Your task to perform on an android device: change your default location settings in chrome Image 0: 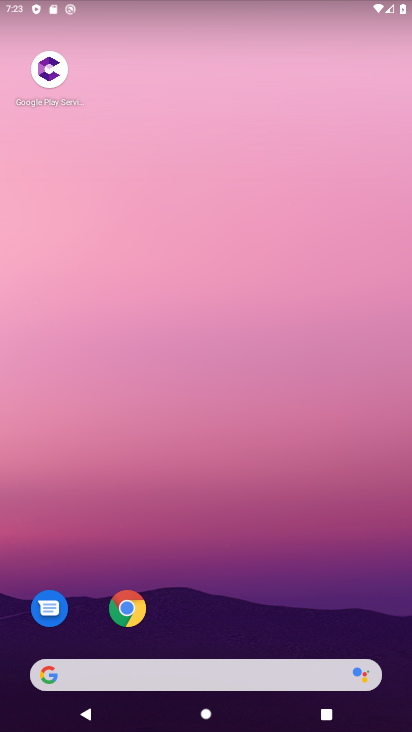
Step 0: drag from (290, 627) to (280, 214)
Your task to perform on an android device: change your default location settings in chrome Image 1: 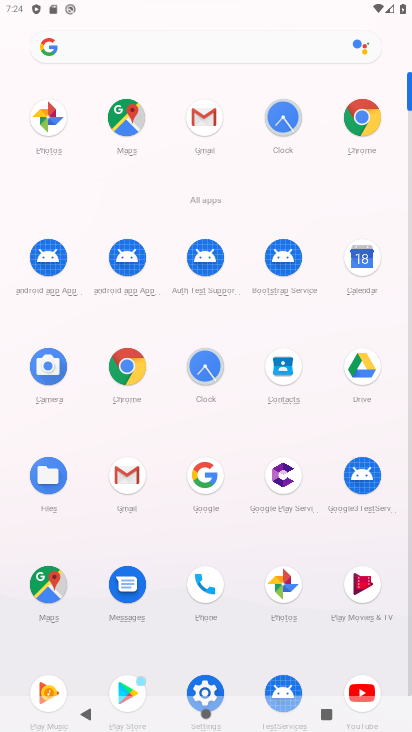
Step 1: drag from (240, 577) to (242, 276)
Your task to perform on an android device: change your default location settings in chrome Image 2: 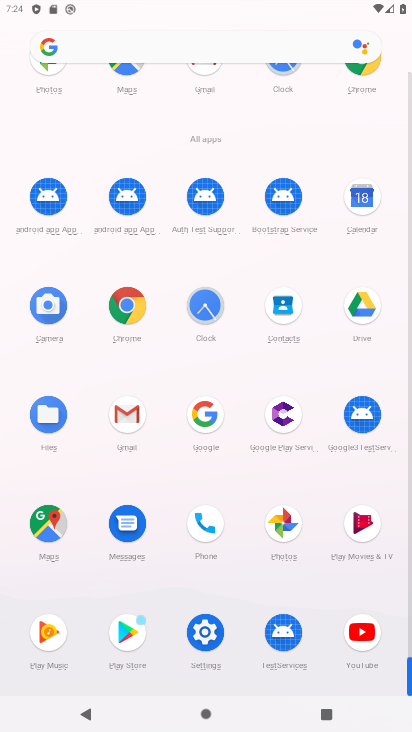
Step 2: drag from (236, 497) to (251, 248)
Your task to perform on an android device: change your default location settings in chrome Image 3: 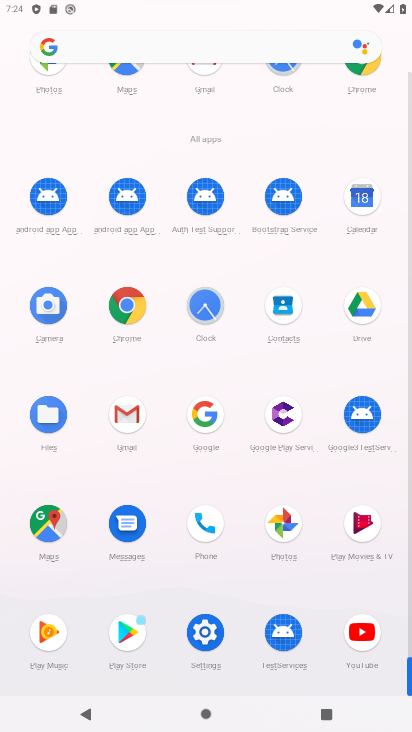
Step 3: drag from (231, 493) to (226, 636)
Your task to perform on an android device: change your default location settings in chrome Image 4: 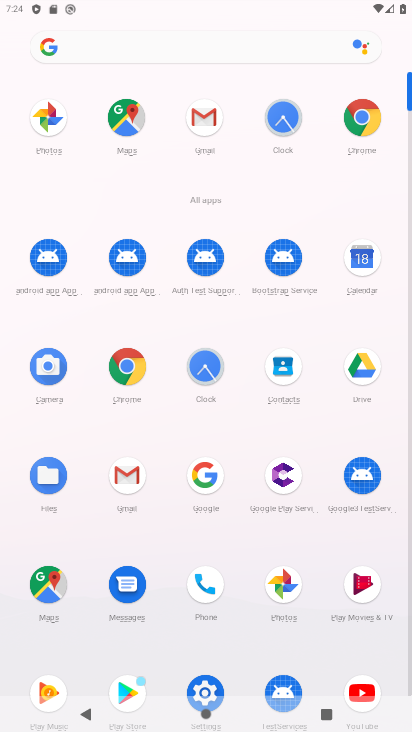
Step 4: click (147, 373)
Your task to perform on an android device: change your default location settings in chrome Image 5: 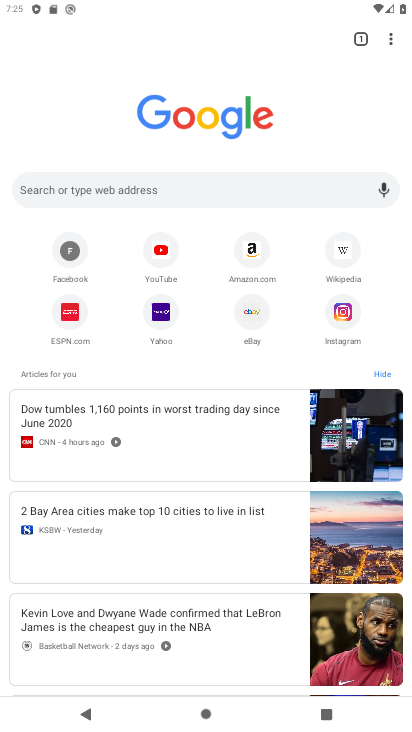
Step 5: click (381, 39)
Your task to perform on an android device: change your default location settings in chrome Image 6: 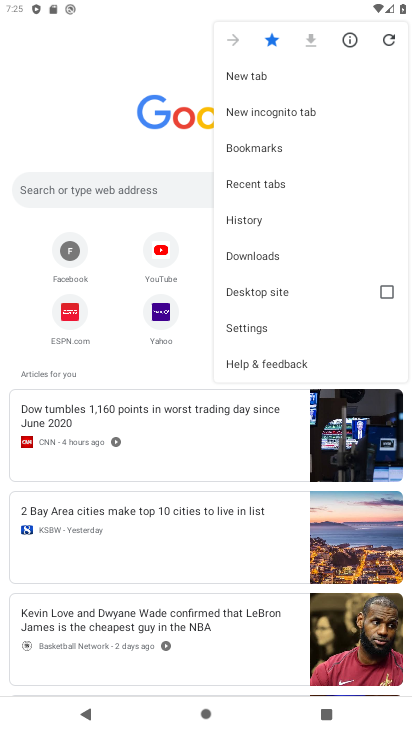
Step 6: click (253, 339)
Your task to perform on an android device: change your default location settings in chrome Image 7: 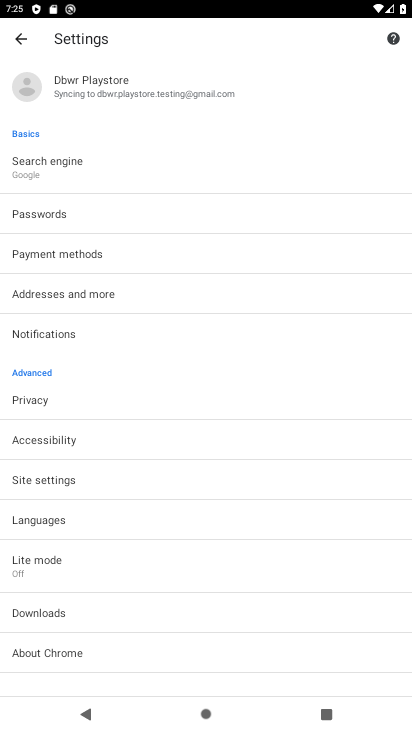
Step 7: click (67, 482)
Your task to perform on an android device: change your default location settings in chrome Image 8: 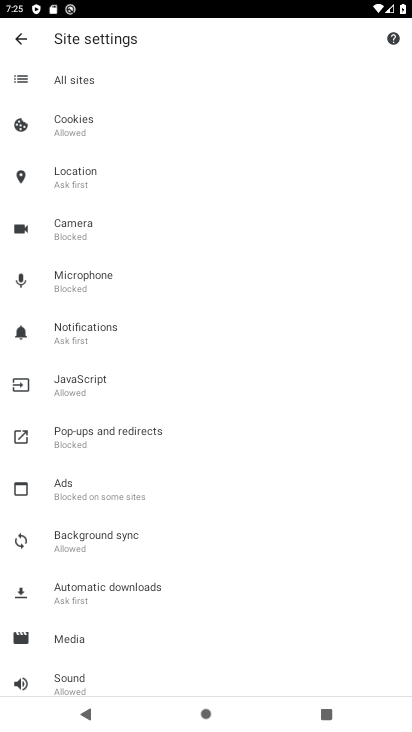
Step 8: click (105, 181)
Your task to perform on an android device: change your default location settings in chrome Image 9: 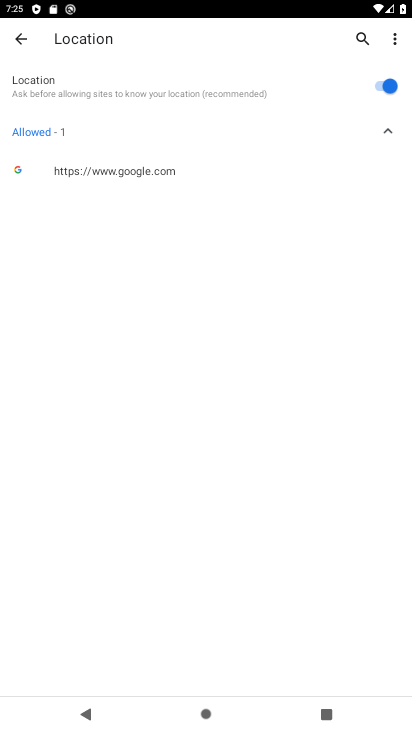
Step 9: click (394, 87)
Your task to perform on an android device: change your default location settings in chrome Image 10: 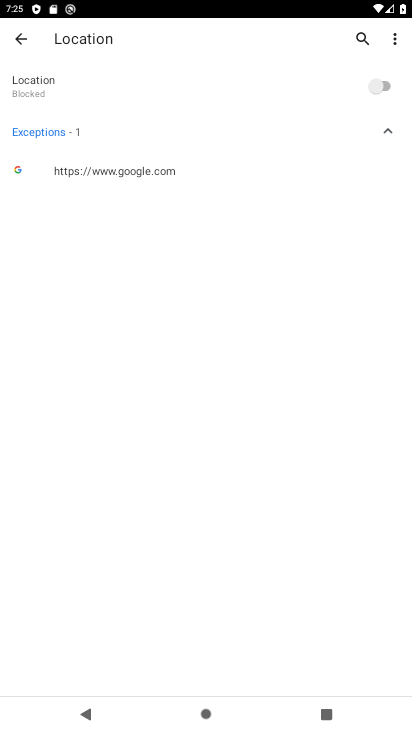
Step 10: task complete